Your task to perform on an android device: Go to CNN.com Image 0: 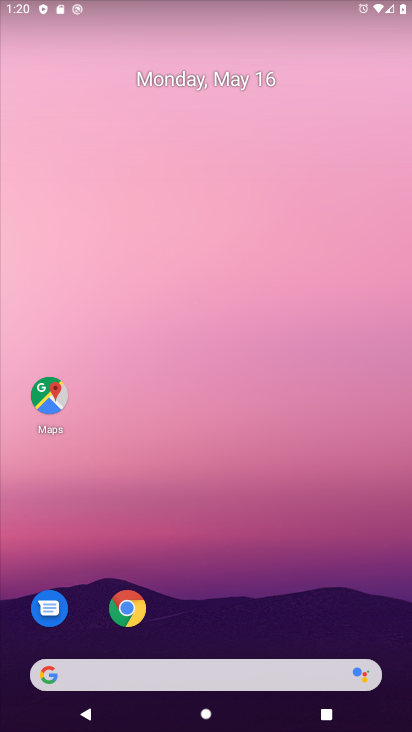
Step 0: click (114, 613)
Your task to perform on an android device: Go to CNN.com Image 1: 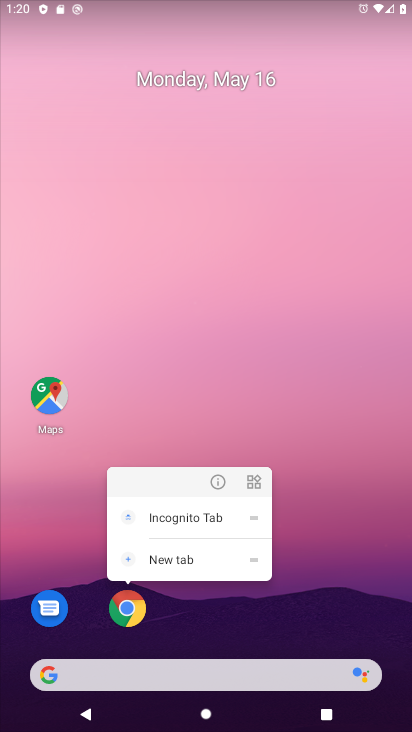
Step 1: click (124, 607)
Your task to perform on an android device: Go to CNN.com Image 2: 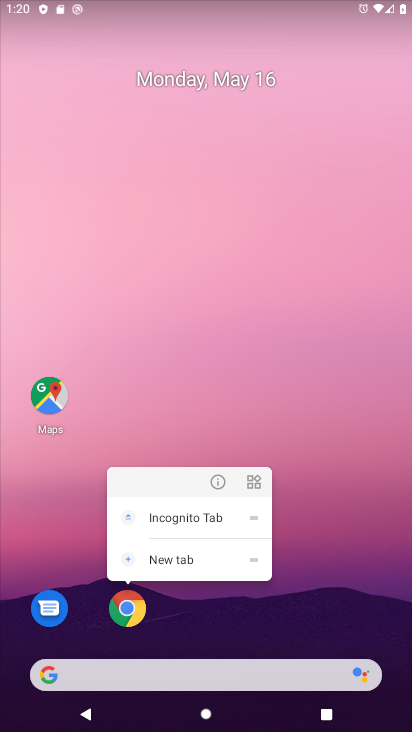
Step 2: click (128, 619)
Your task to perform on an android device: Go to CNN.com Image 3: 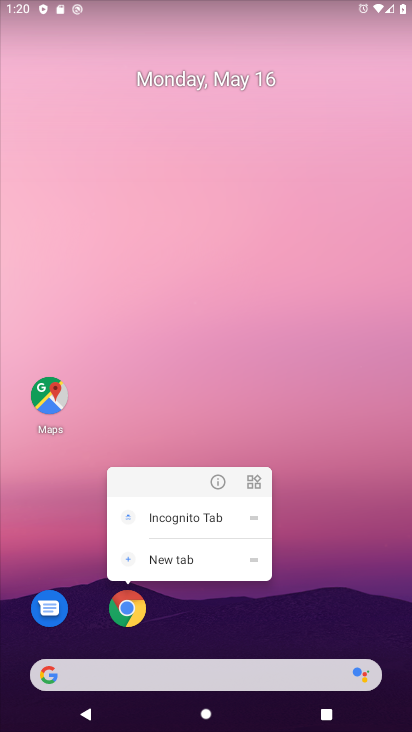
Step 3: click (128, 619)
Your task to perform on an android device: Go to CNN.com Image 4: 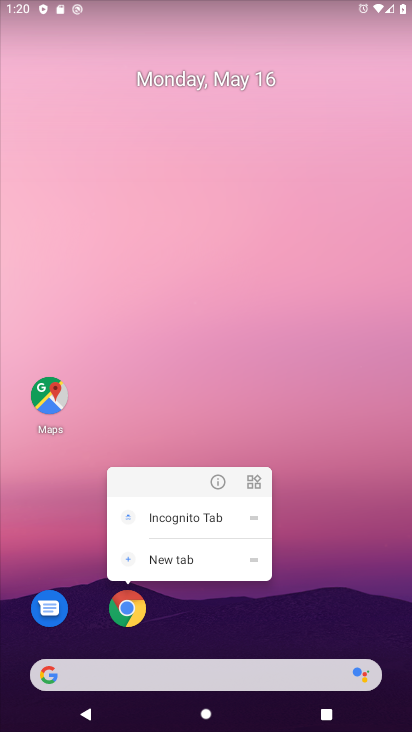
Step 4: click (129, 609)
Your task to perform on an android device: Go to CNN.com Image 5: 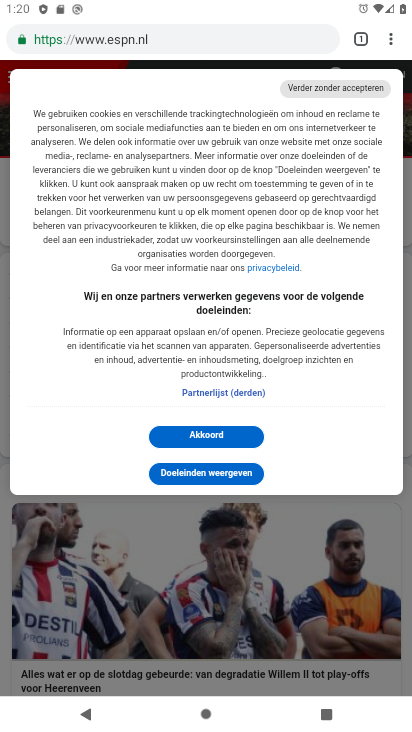
Step 5: click (225, 24)
Your task to perform on an android device: Go to CNN.com Image 6: 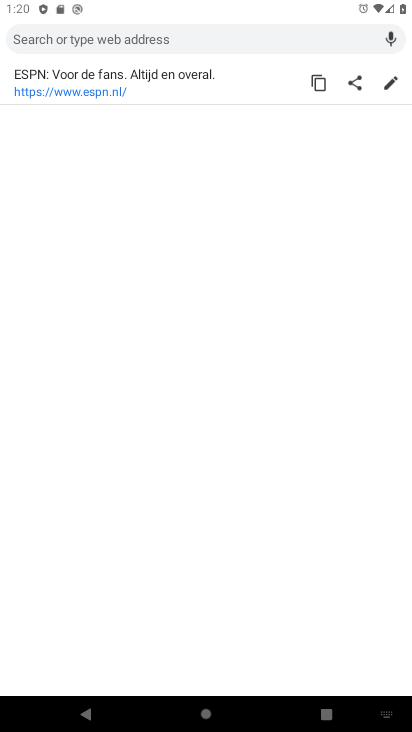
Step 6: type "CNN.com"
Your task to perform on an android device: Go to CNN.com Image 7: 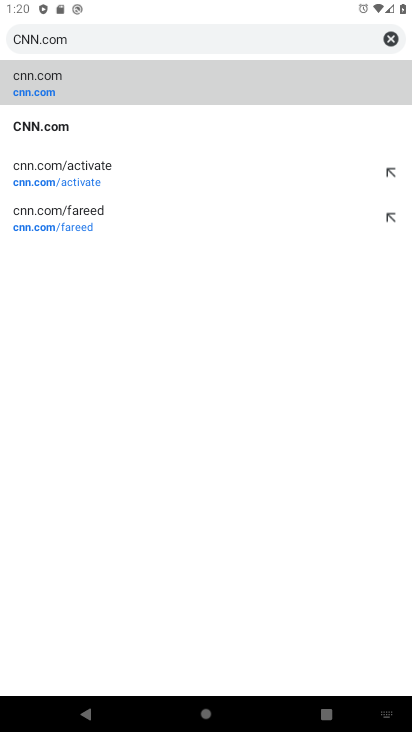
Step 7: click (83, 86)
Your task to perform on an android device: Go to CNN.com Image 8: 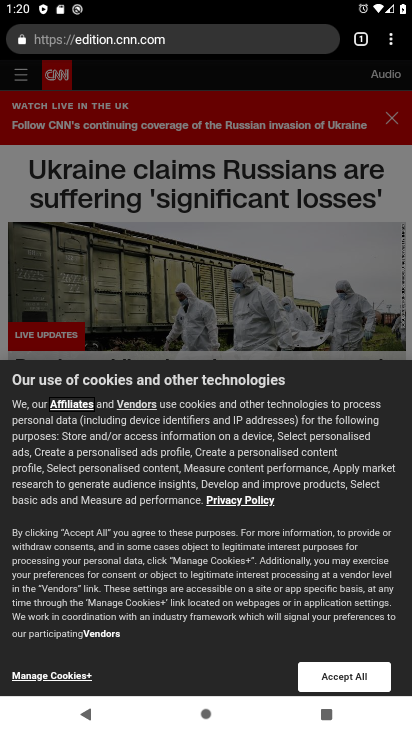
Step 8: task complete